Your task to perform on an android device: Go to internet settings Image 0: 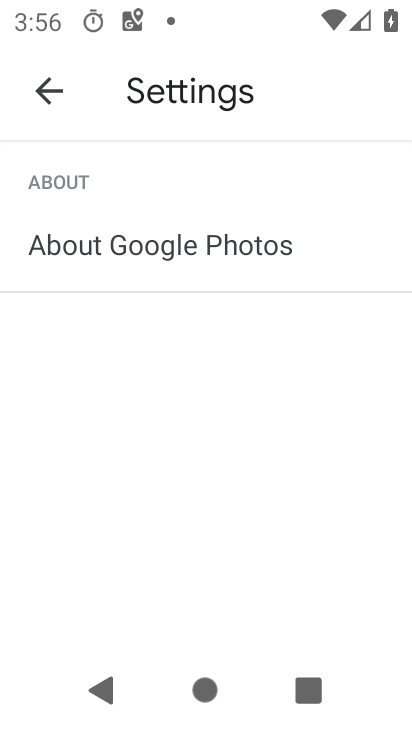
Step 0: press home button
Your task to perform on an android device: Go to internet settings Image 1: 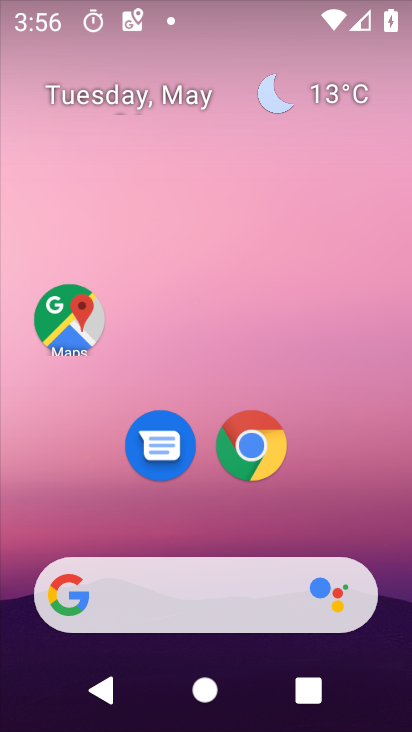
Step 1: drag from (211, 530) to (226, 57)
Your task to perform on an android device: Go to internet settings Image 2: 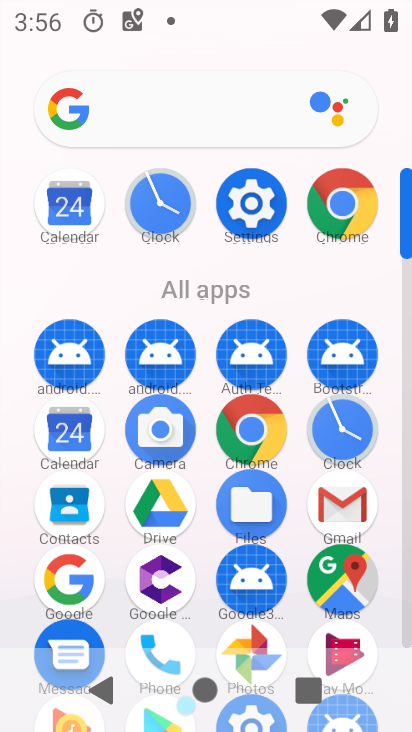
Step 2: click (248, 193)
Your task to perform on an android device: Go to internet settings Image 3: 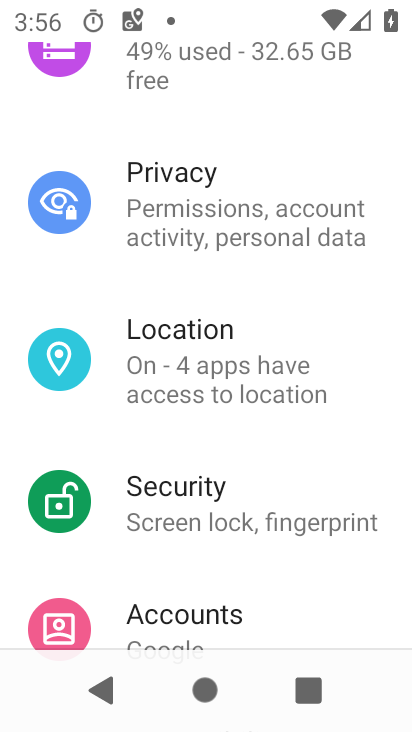
Step 3: drag from (187, 78) to (198, 660)
Your task to perform on an android device: Go to internet settings Image 4: 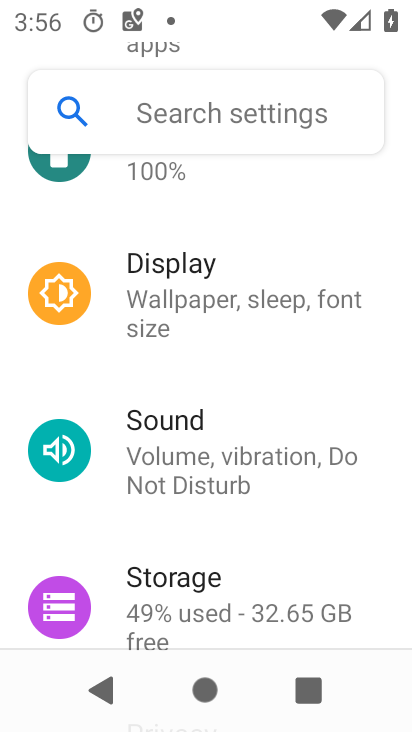
Step 4: drag from (202, 164) to (210, 663)
Your task to perform on an android device: Go to internet settings Image 5: 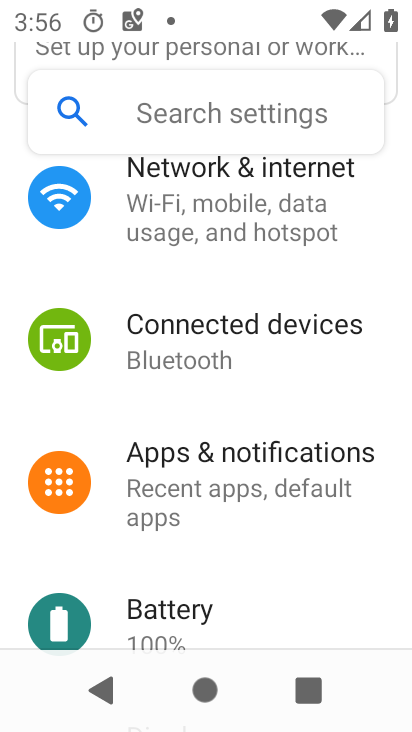
Step 5: click (186, 200)
Your task to perform on an android device: Go to internet settings Image 6: 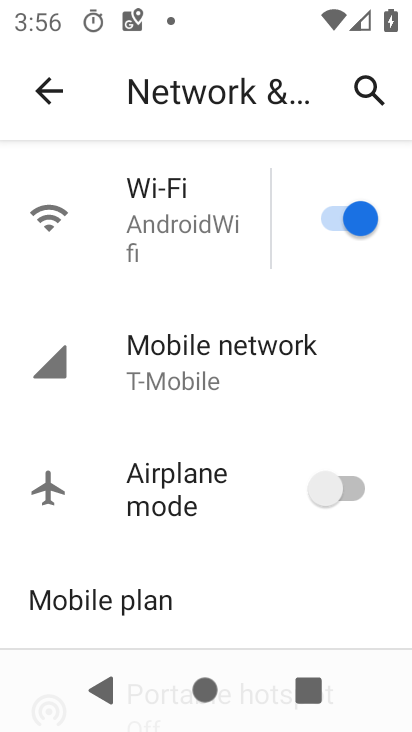
Step 6: drag from (185, 639) to (193, 129)
Your task to perform on an android device: Go to internet settings Image 7: 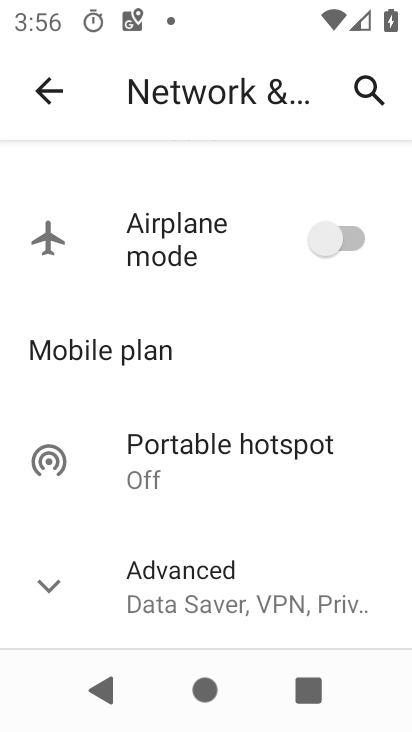
Step 7: click (46, 575)
Your task to perform on an android device: Go to internet settings Image 8: 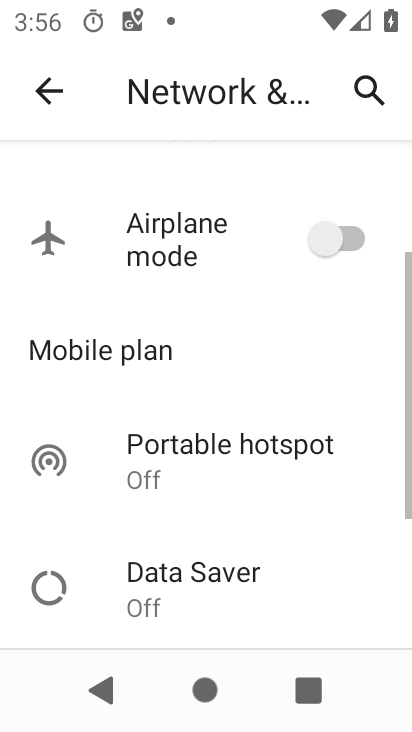
Step 8: task complete